Your task to perform on an android device: open app "Lyft - Rideshare, Bikes, Scooters & Transit" (install if not already installed) Image 0: 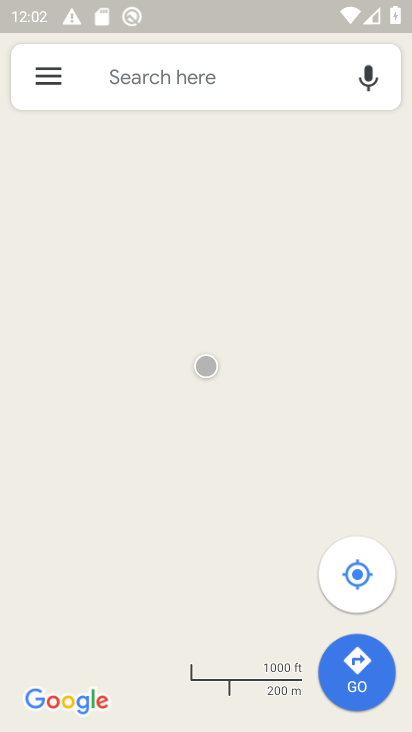
Step 0: press home button
Your task to perform on an android device: open app "Lyft - Rideshare, Bikes, Scooters & Transit" (install if not already installed) Image 1: 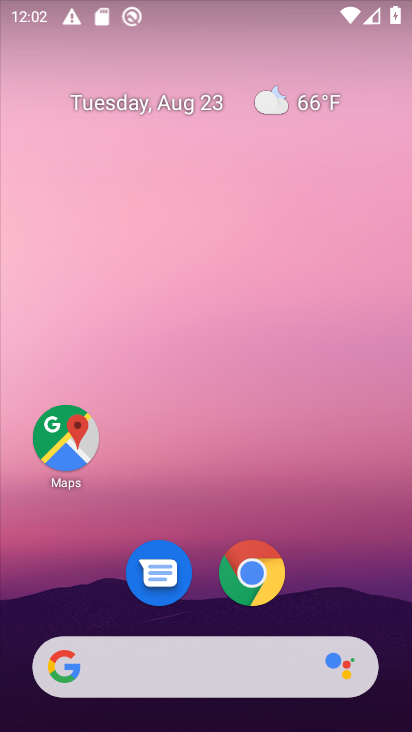
Step 1: drag from (201, 510) to (201, 169)
Your task to perform on an android device: open app "Lyft - Rideshare, Bikes, Scooters & Transit" (install if not already installed) Image 2: 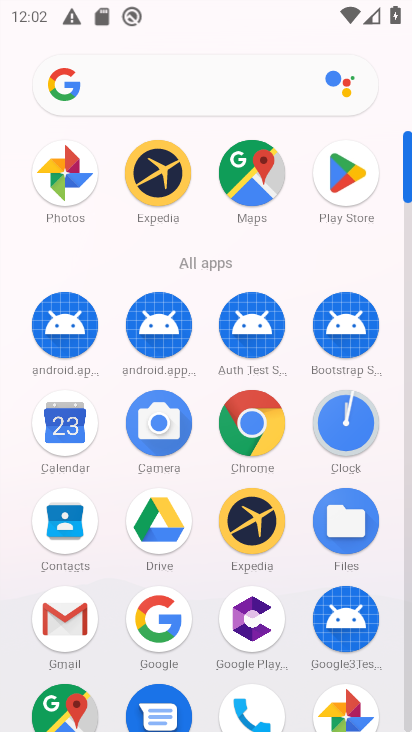
Step 2: click (344, 173)
Your task to perform on an android device: open app "Lyft - Rideshare, Bikes, Scooters & Transit" (install if not already installed) Image 3: 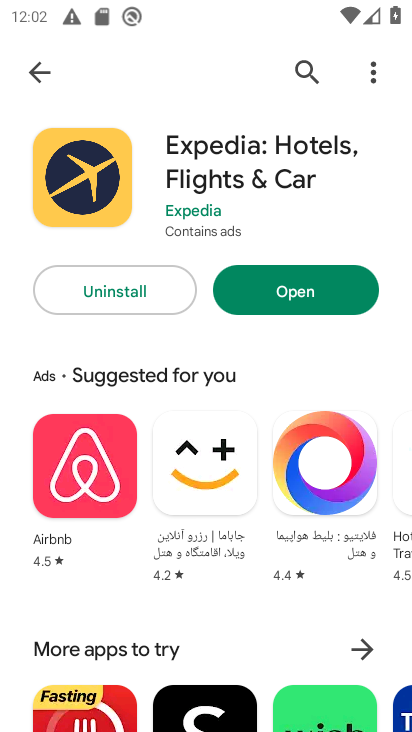
Step 3: click (305, 78)
Your task to perform on an android device: open app "Lyft - Rideshare, Bikes, Scooters & Transit" (install if not already installed) Image 4: 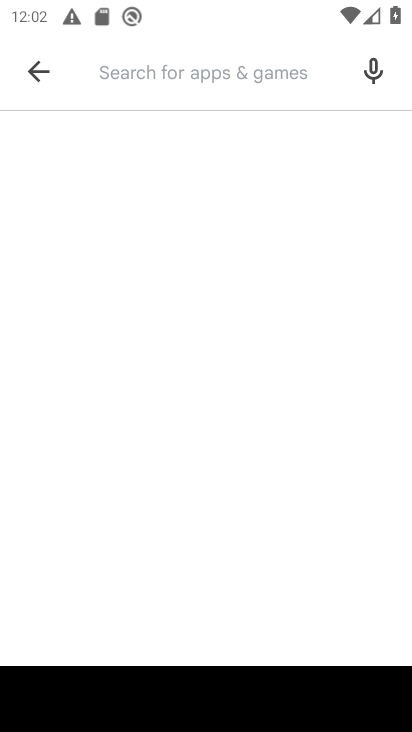
Step 4: type "Lyft"
Your task to perform on an android device: open app "Lyft - Rideshare, Bikes, Scooters & Transit" (install if not already installed) Image 5: 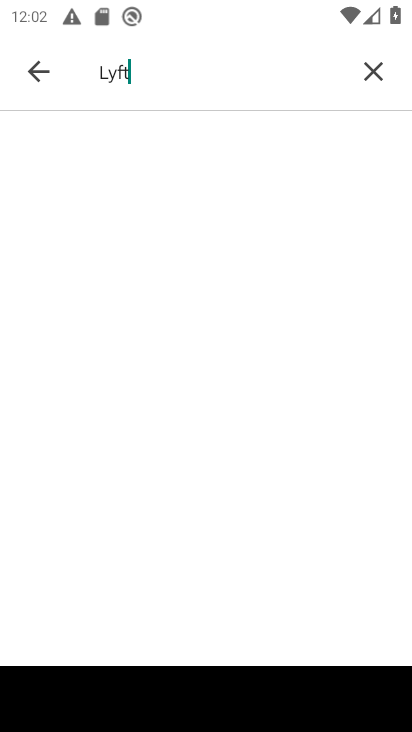
Step 5: type ""
Your task to perform on an android device: open app "Lyft - Rideshare, Bikes, Scooters & Transit" (install if not already installed) Image 6: 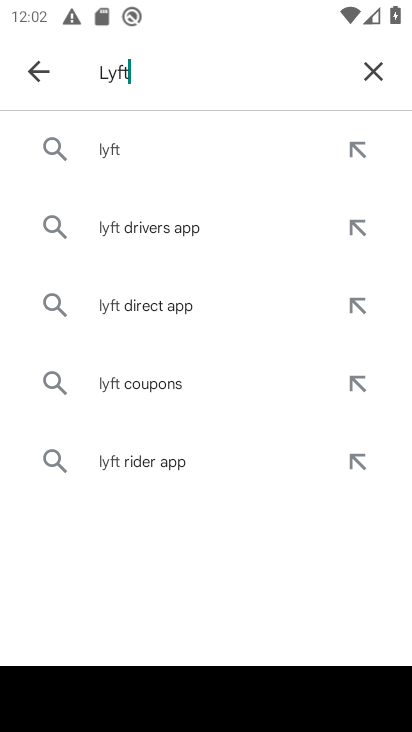
Step 6: click (125, 154)
Your task to perform on an android device: open app "Lyft - Rideshare, Bikes, Scooters & Transit" (install if not already installed) Image 7: 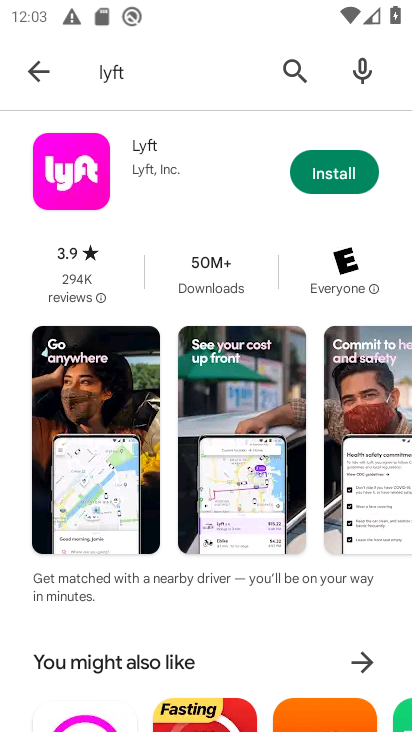
Step 7: click (315, 176)
Your task to perform on an android device: open app "Lyft - Rideshare, Bikes, Scooters & Transit" (install if not already installed) Image 8: 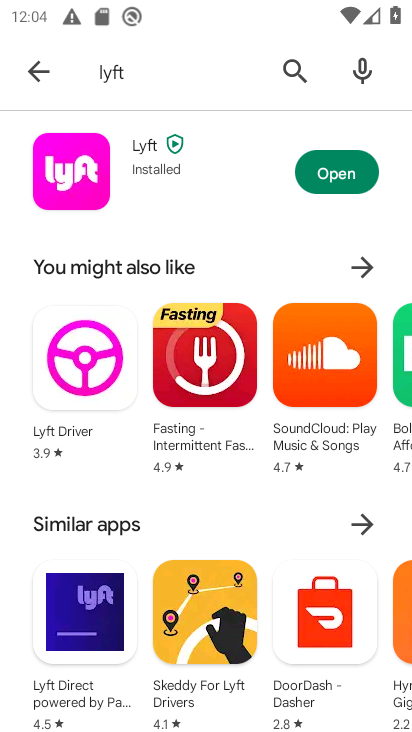
Step 8: click (326, 182)
Your task to perform on an android device: open app "Lyft - Rideshare, Bikes, Scooters & Transit" (install if not already installed) Image 9: 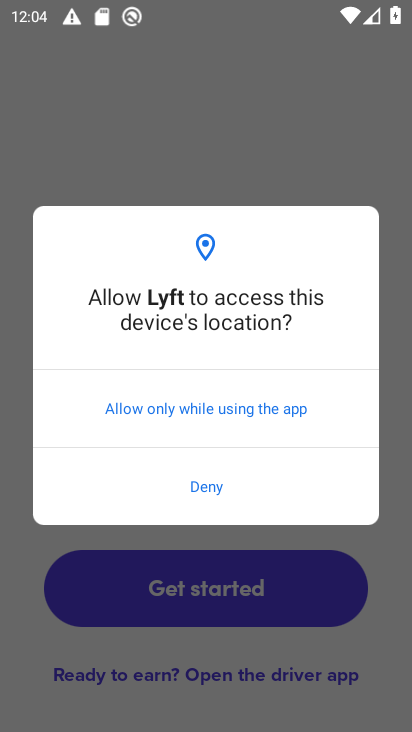
Step 9: task complete